Your task to perform on an android device: Open Amazon Image 0: 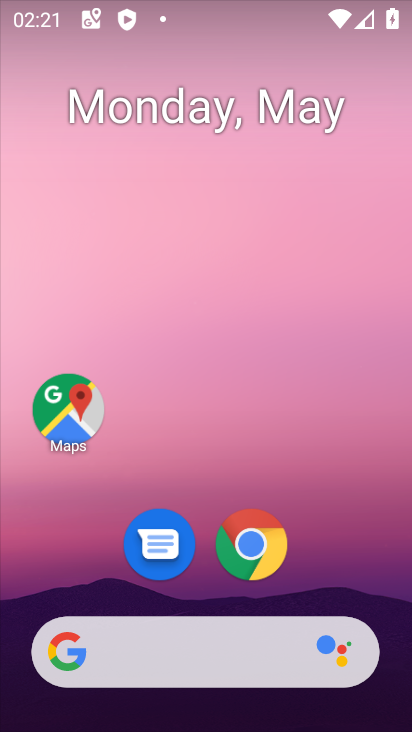
Step 0: drag from (386, 580) to (357, 180)
Your task to perform on an android device: Open Amazon Image 1: 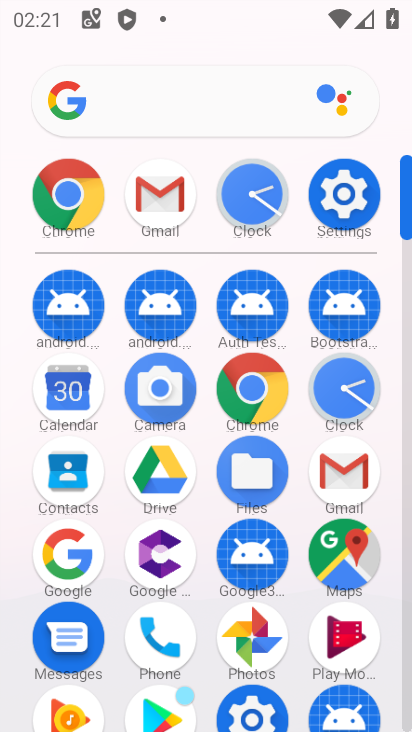
Step 1: click (268, 389)
Your task to perform on an android device: Open Amazon Image 2: 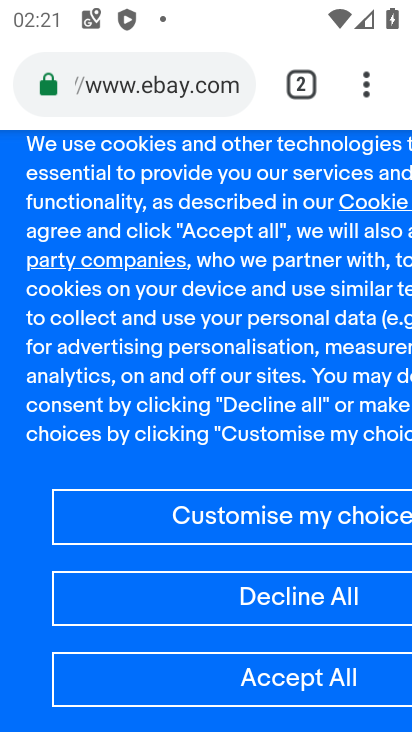
Step 2: click (202, 94)
Your task to perform on an android device: Open Amazon Image 3: 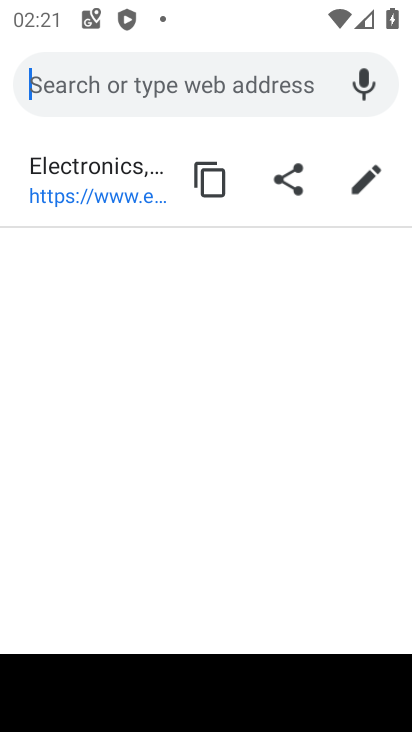
Step 3: type "amzone"
Your task to perform on an android device: Open Amazon Image 4: 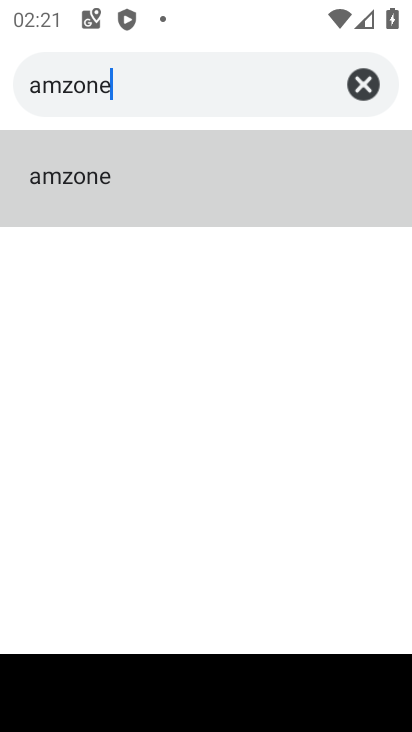
Step 4: click (88, 180)
Your task to perform on an android device: Open Amazon Image 5: 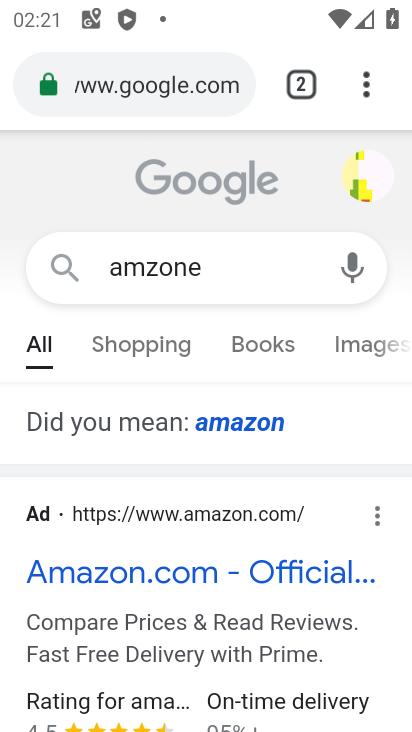
Step 5: click (158, 579)
Your task to perform on an android device: Open Amazon Image 6: 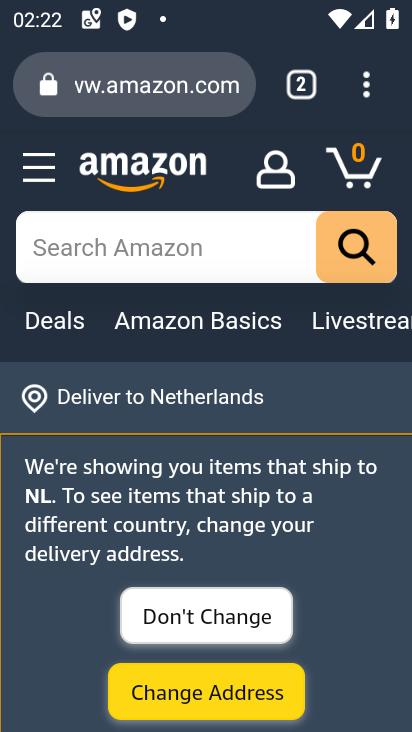
Step 6: task complete